Your task to perform on an android device: Open Google Maps Image 0: 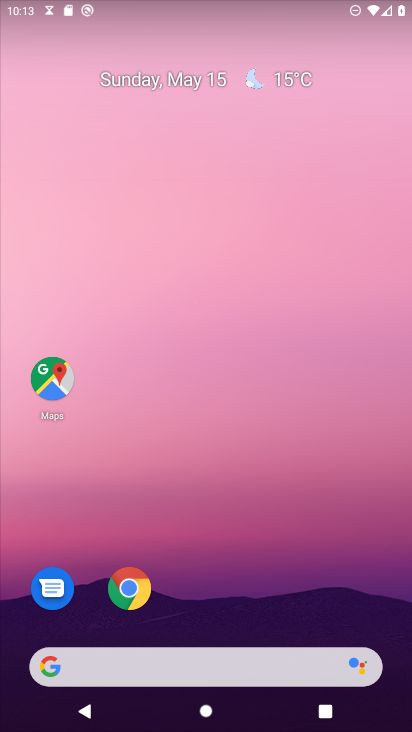
Step 0: click (46, 372)
Your task to perform on an android device: Open Google Maps Image 1: 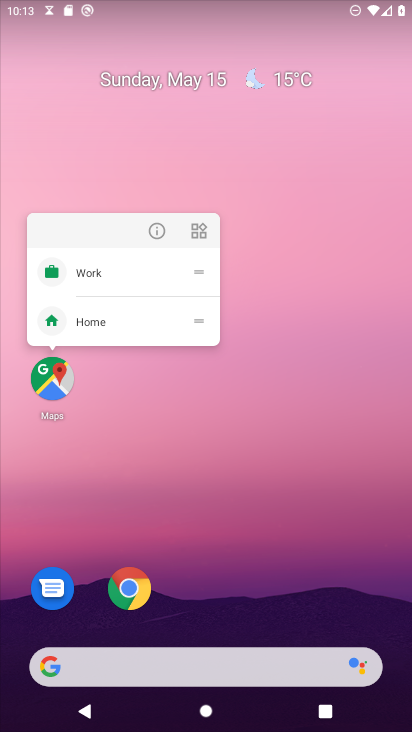
Step 1: click (253, 573)
Your task to perform on an android device: Open Google Maps Image 2: 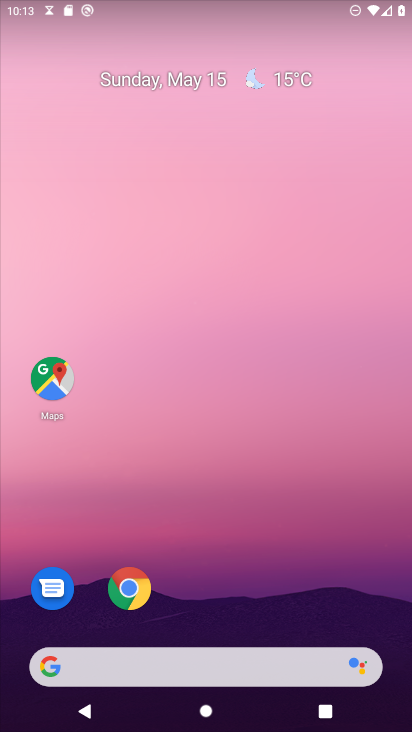
Step 2: click (61, 382)
Your task to perform on an android device: Open Google Maps Image 3: 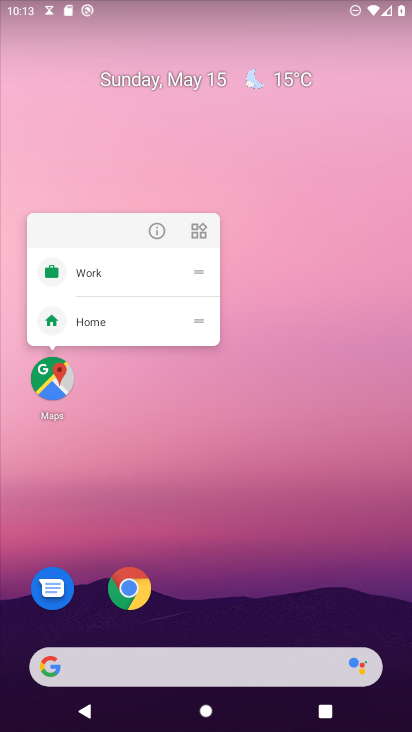
Step 3: click (56, 400)
Your task to perform on an android device: Open Google Maps Image 4: 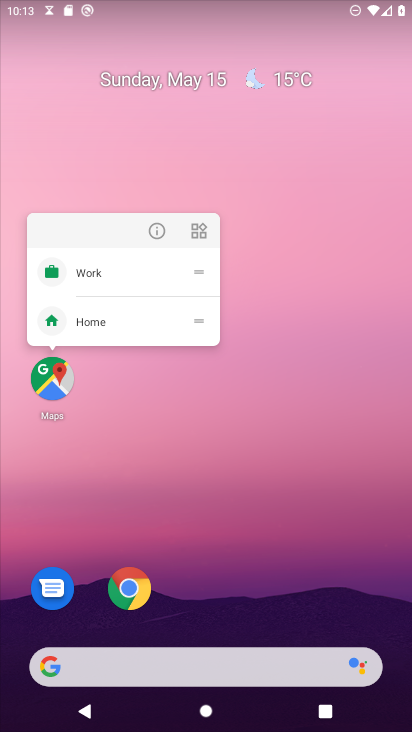
Step 4: click (59, 395)
Your task to perform on an android device: Open Google Maps Image 5: 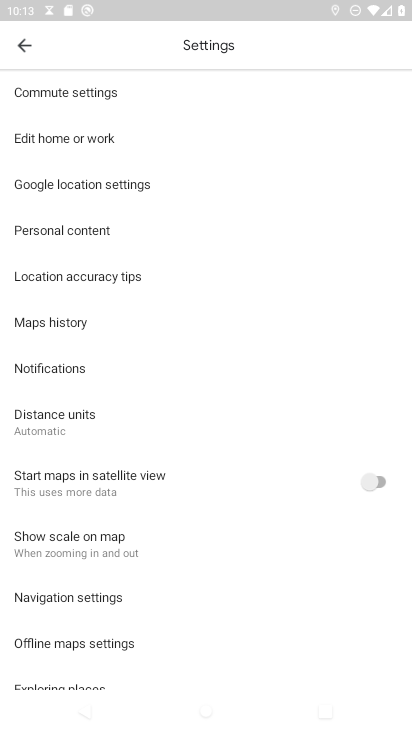
Step 5: click (25, 35)
Your task to perform on an android device: Open Google Maps Image 6: 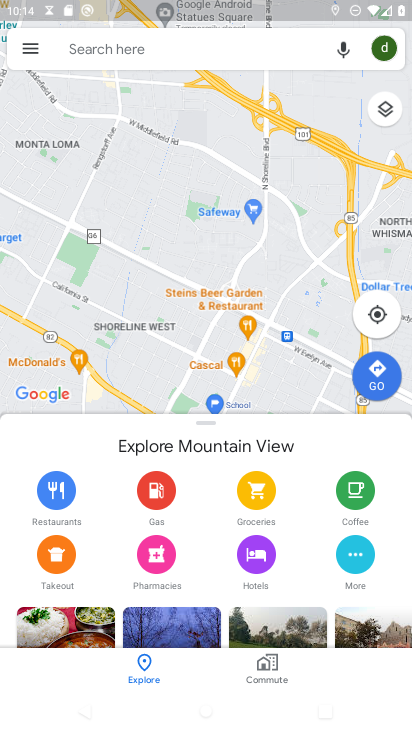
Step 6: task complete